Your task to perform on an android device: turn off priority inbox in the gmail app Image 0: 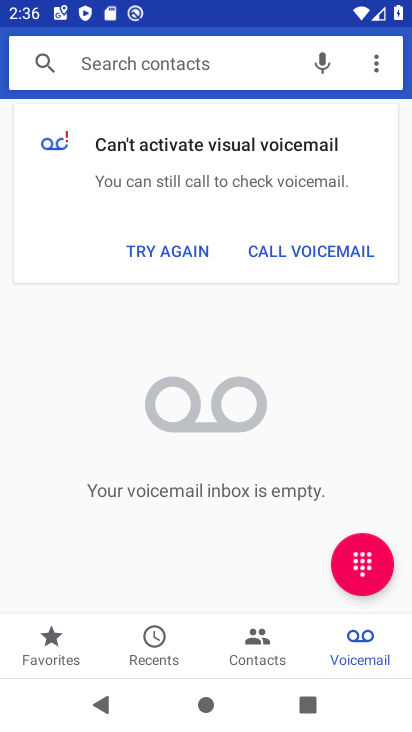
Step 0: press back button
Your task to perform on an android device: turn off priority inbox in the gmail app Image 1: 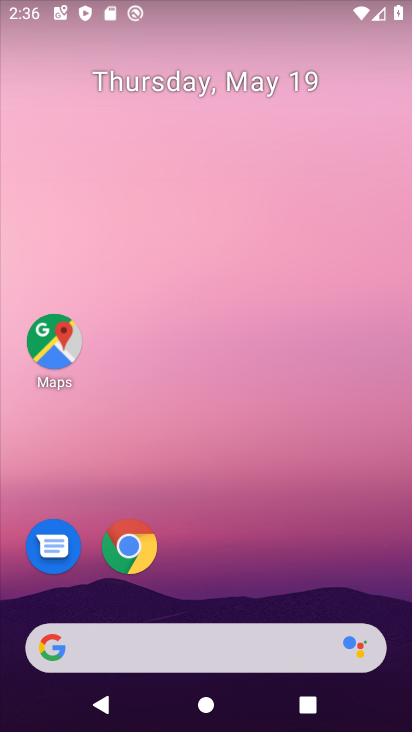
Step 1: drag from (249, 542) to (199, 29)
Your task to perform on an android device: turn off priority inbox in the gmail app Image 2: 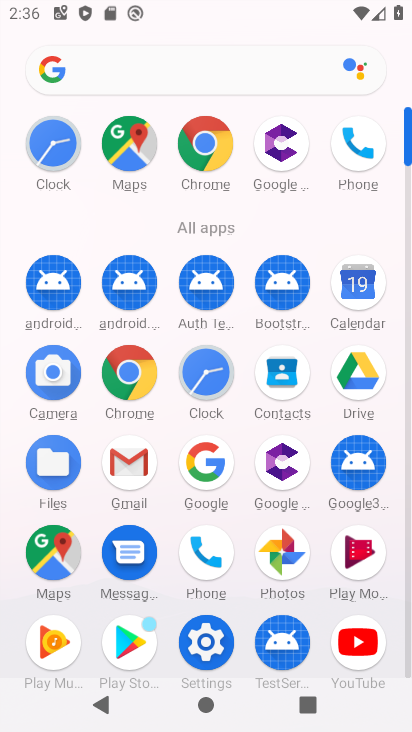
Step 2: click (126, 461)
Your task to perform on an android device: turn off priority inbox in the gmail app Image 3: 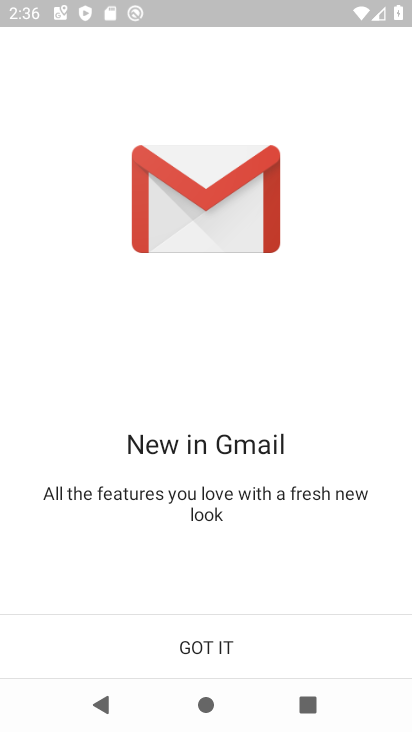
Step 3: click (203, 650)
Your task to perform on an android device: turn off priority inbox in the gmail app Image 4: 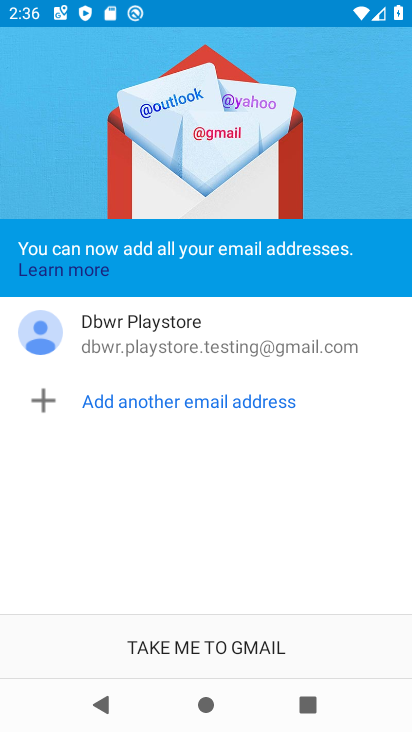
Step 4: click (203, 642)
Your task to perform on an android device: turn off priority inbox in the gmail app Image 5: 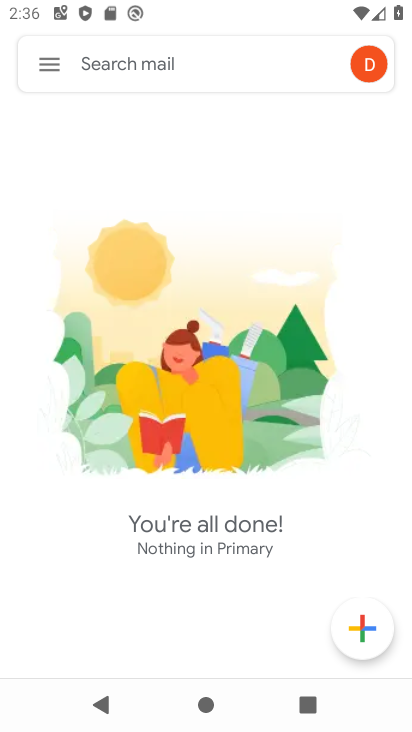
Step 5: click (46, 66)
Your task to perform on an android device: turn off priority inbox in the gmail app Image 6: 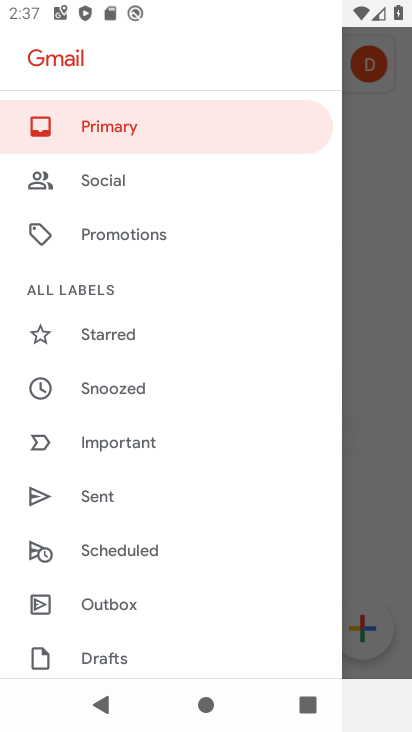
Step 6: drag from (171, 507) to (183, 428)
Your task to perform on an android device: turn off priority inbox in the gmail app Image 7: 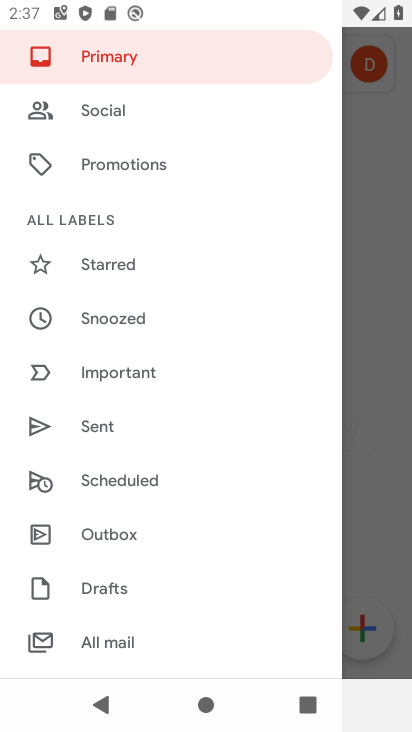
Step 7: drag from (145, 555) to (180, 479)
Your task to perform on an android device: turn off priority inbox in the gmail app Image 8: 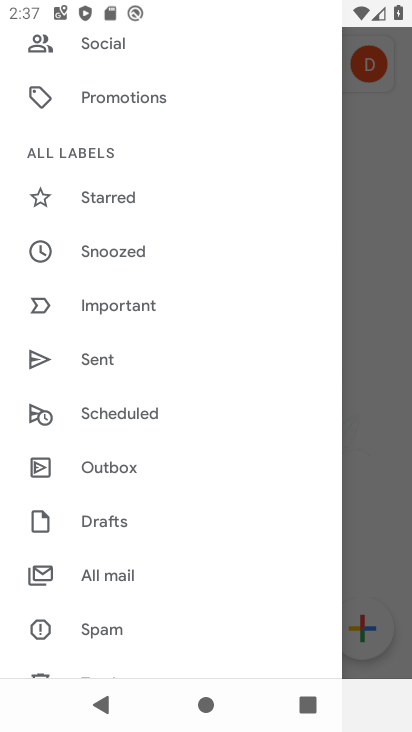
Step 8: drag from (127, 621) to (180, 535)
Your task to perform on an android device: turn off priority inbox in the gmail app Image 9: 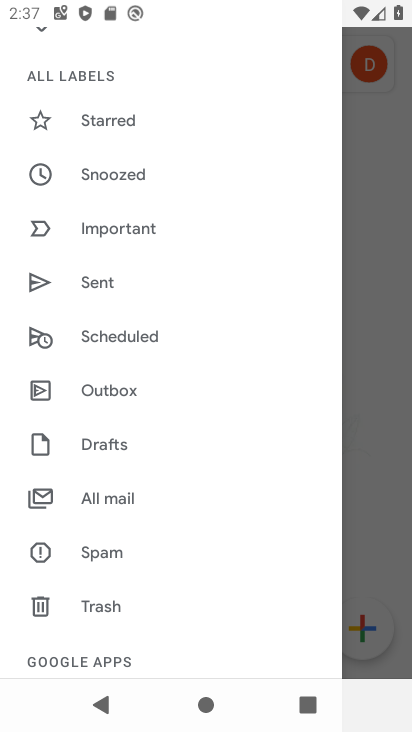
Step 9: drag from (139, 606) to (178, 535)
Your task to perform on an android device: turn off priority inbox in the gmail app Image 10: 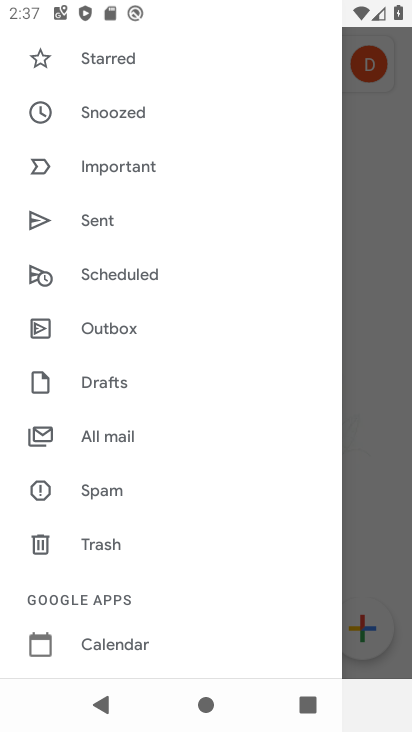
Step 10: drag from (153, 569) to (147, 483)
Your task to perform on an android device: turn off priority inbox in the gmail app Image 11: 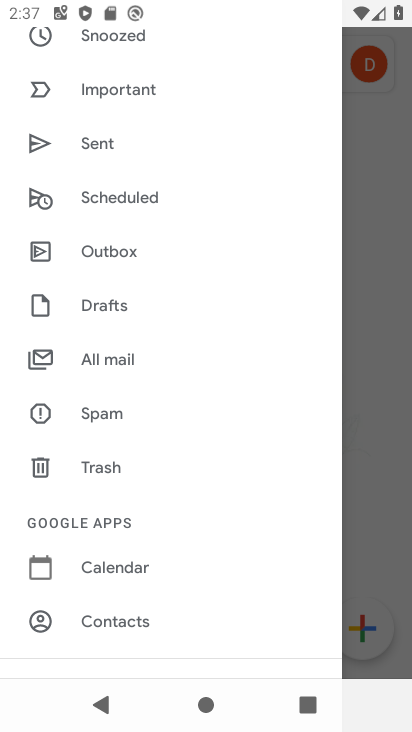
Step 11: drag from (122, 592) to (156, 508)
Your task to perform on an android device: turn off priority inbox in the gmail app Image 12: 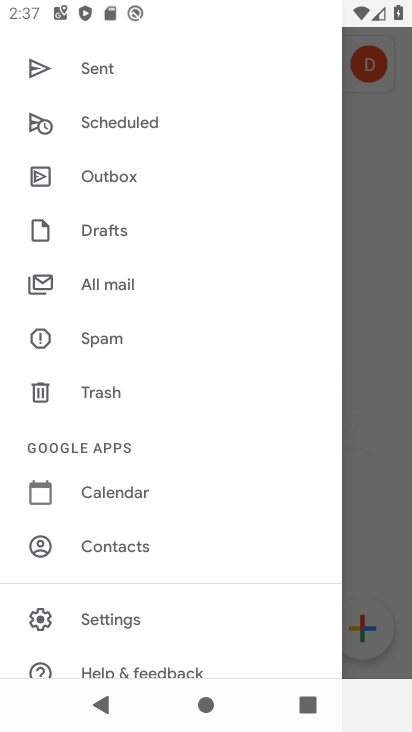
Step 12: click (114, 621)
Your task to perform on an android device: turn off priority inbox in the gmail app Image 13: 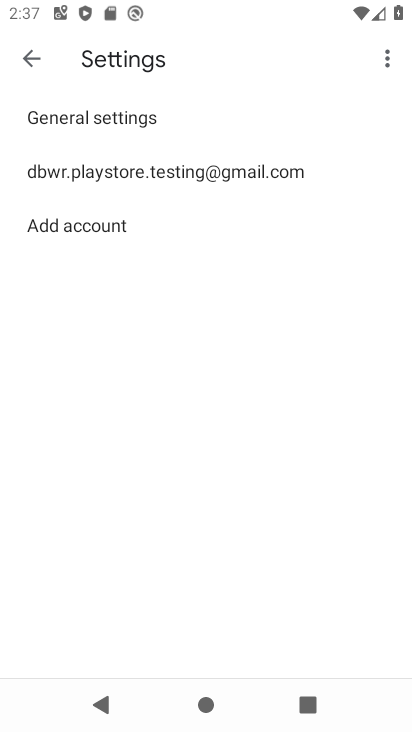
Step 13: click (162, 176)
Your task to perform on an android device: turn off priority inbox in the gmail app Image 14: 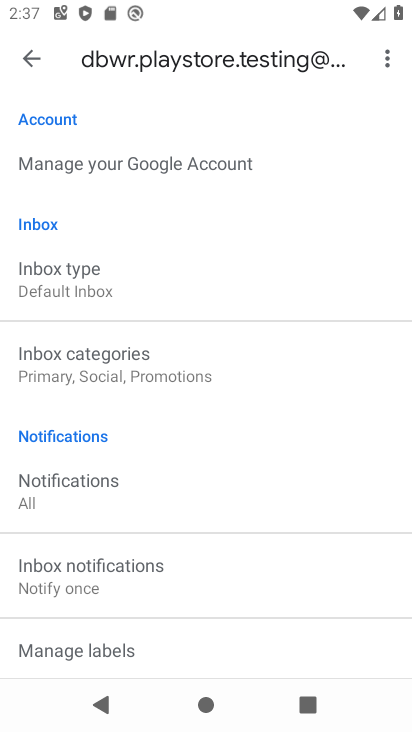
Step 14: click (69, 289)
Your task to perform on an android device: turn off priority inbox in the gmail app Image 15: 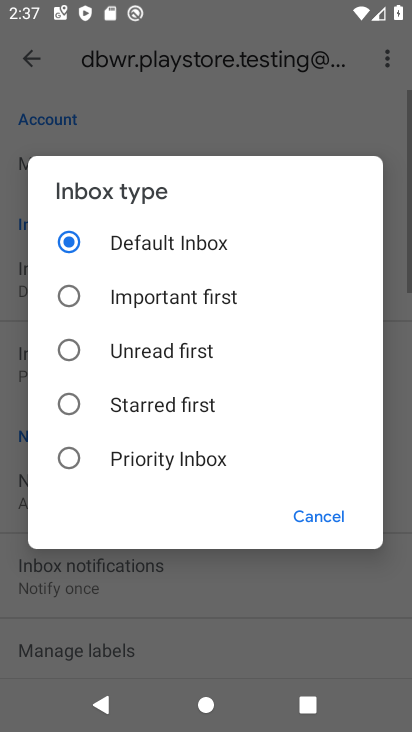
Step 15: click (62, 244)
Your task to perform on an android device: turn off priority inbox in the gmail app Image 16: 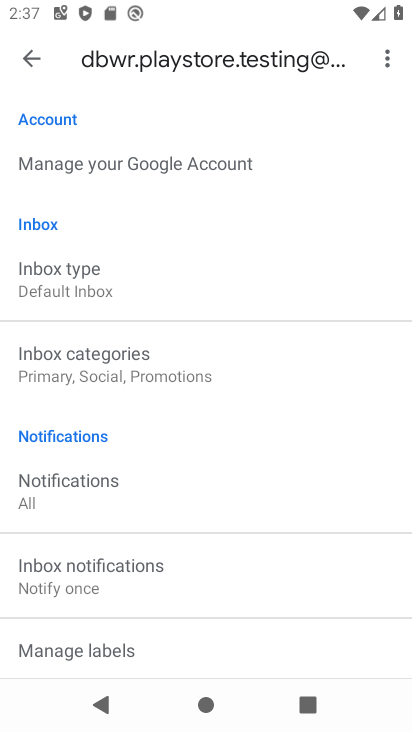
Step 16: task complete